Your task to perform on an android device: Search for the best rated headphones on AliExpress. Image 0: 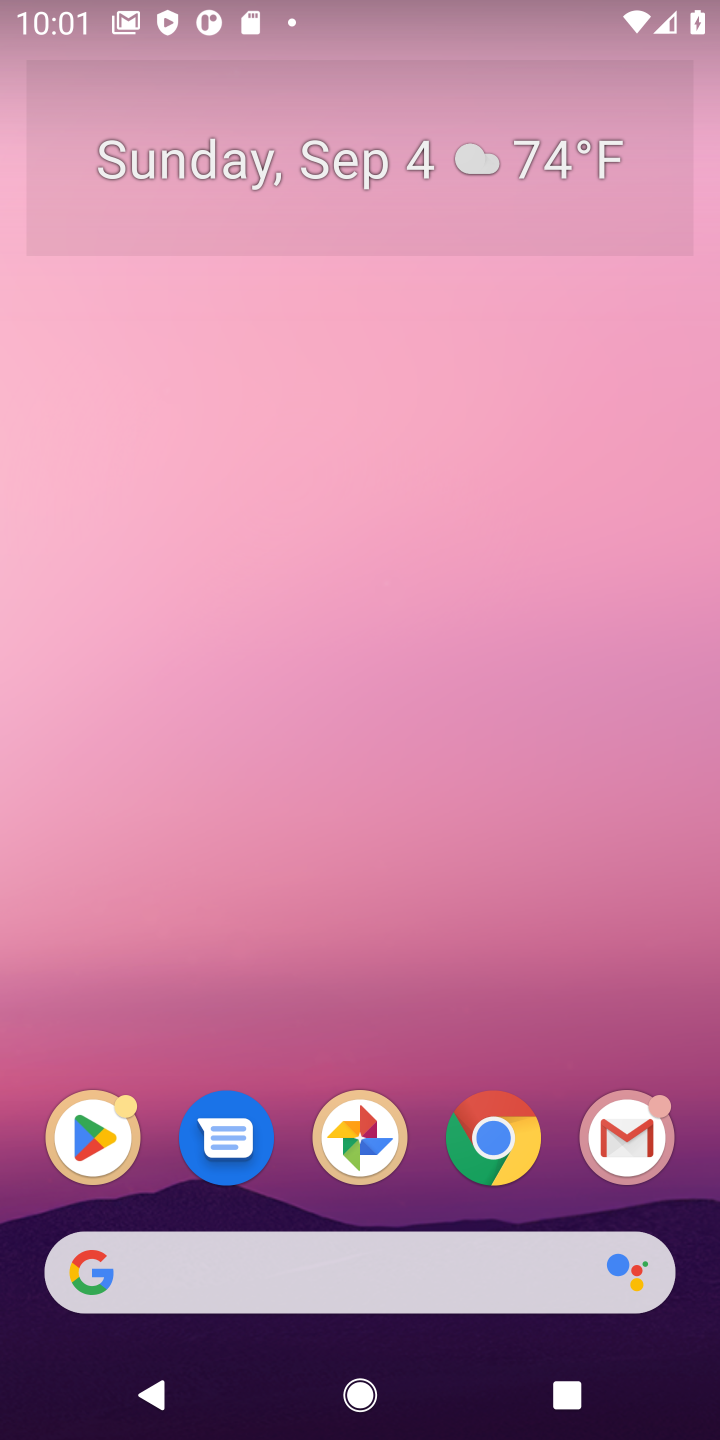
Step 0: click (489, 1173)
Your task to perform on an android device: Search for the best rated headphones on AliExpress. Image 1: 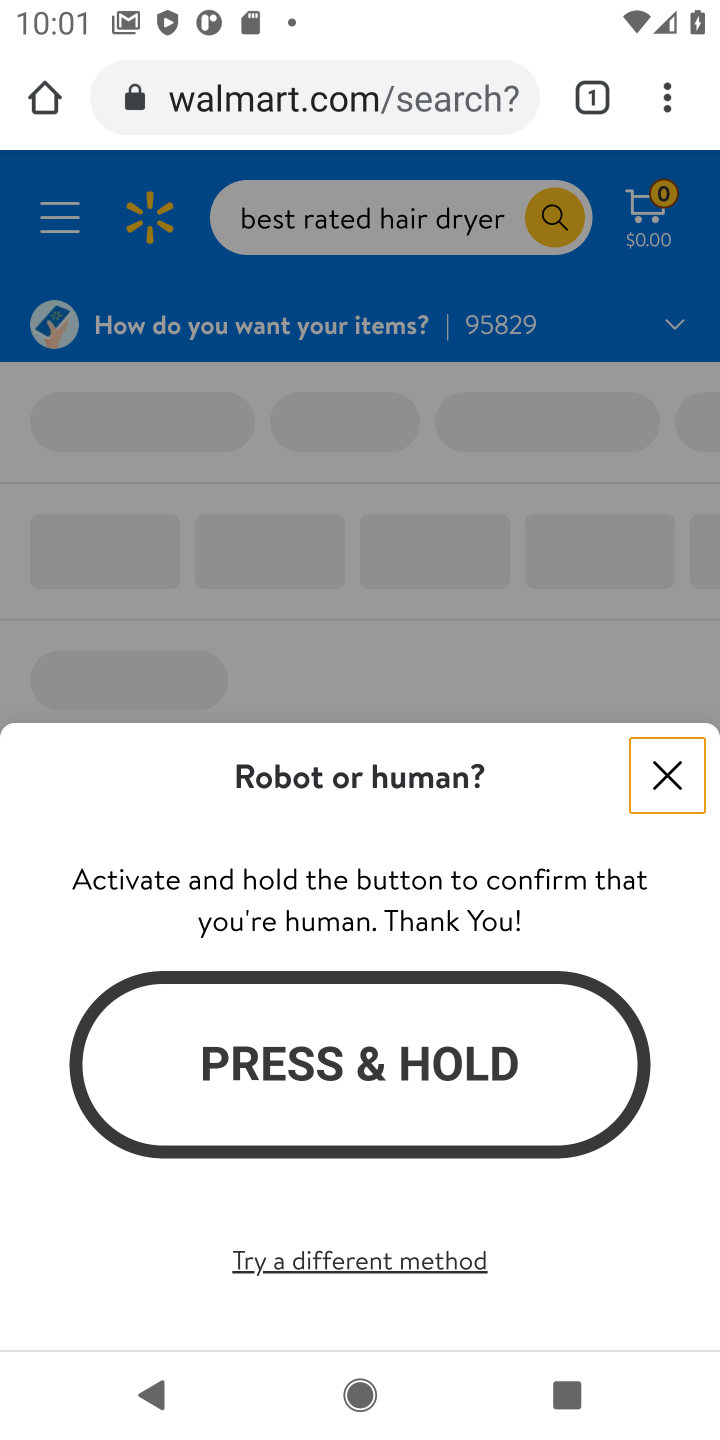
Step 1: click (671, 796)
Your task to perform on an android device: Search for the best rated headphones on AliExpress. Image 2: 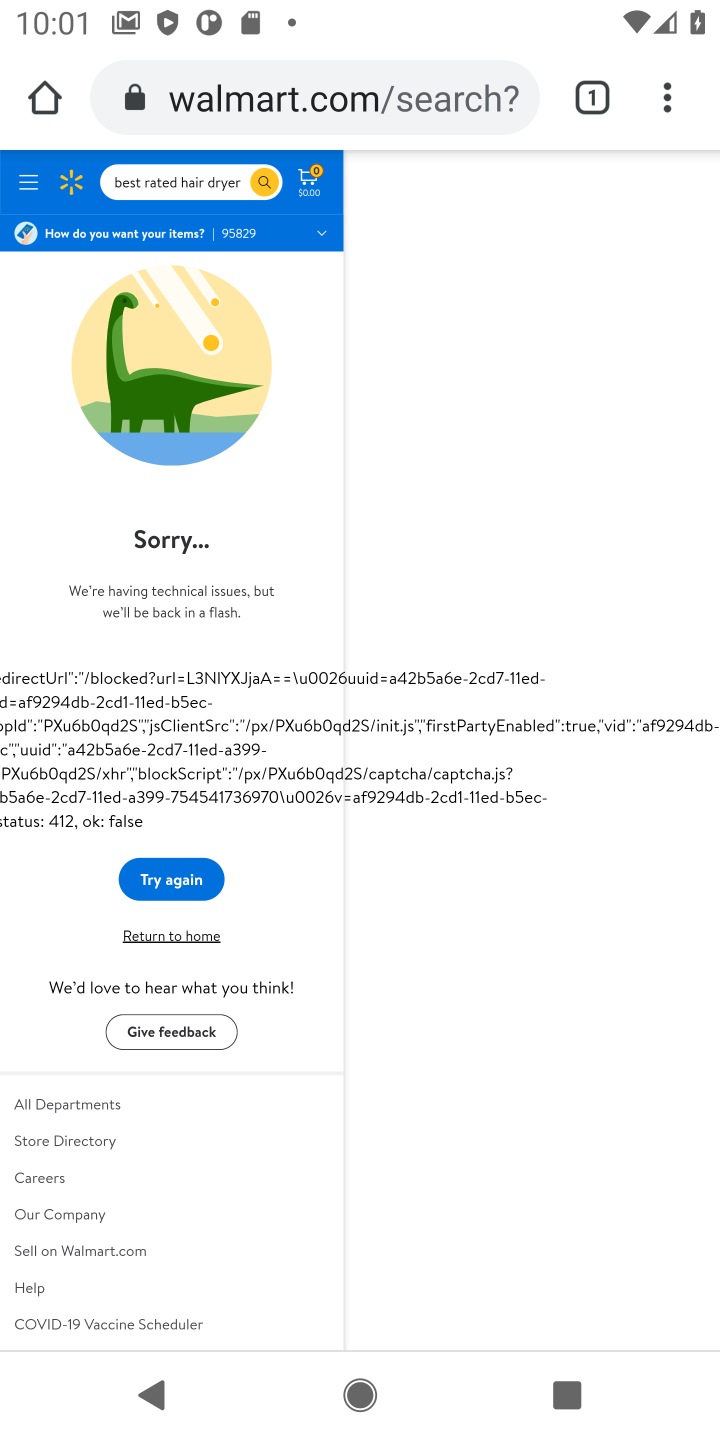
Step 2: click (316, 106)
Your task to perform on an android device: Search for the best rated headphones on AliExpress. Image 3: 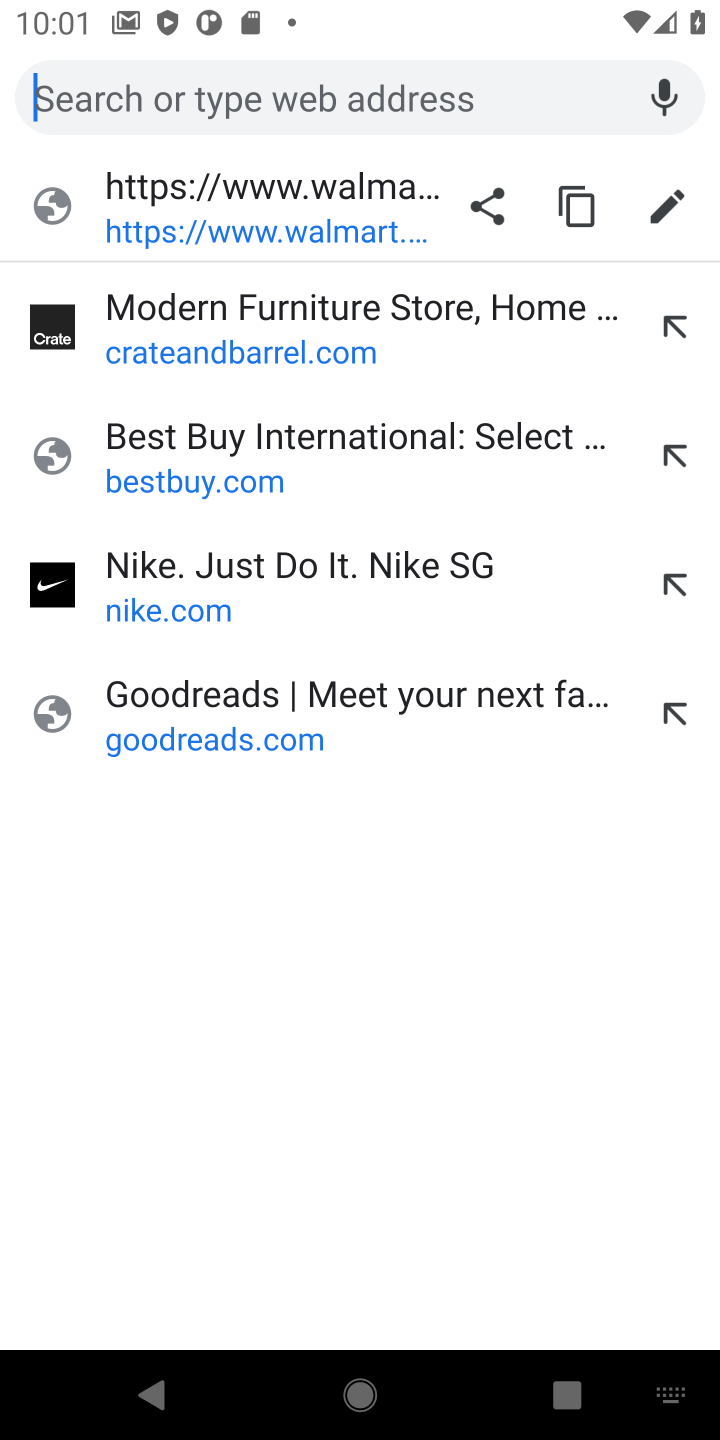
Step 3: type "aliexpress"
Your task to perform on an android device: Search for the best rated headphones on AliExpress. Image 4: 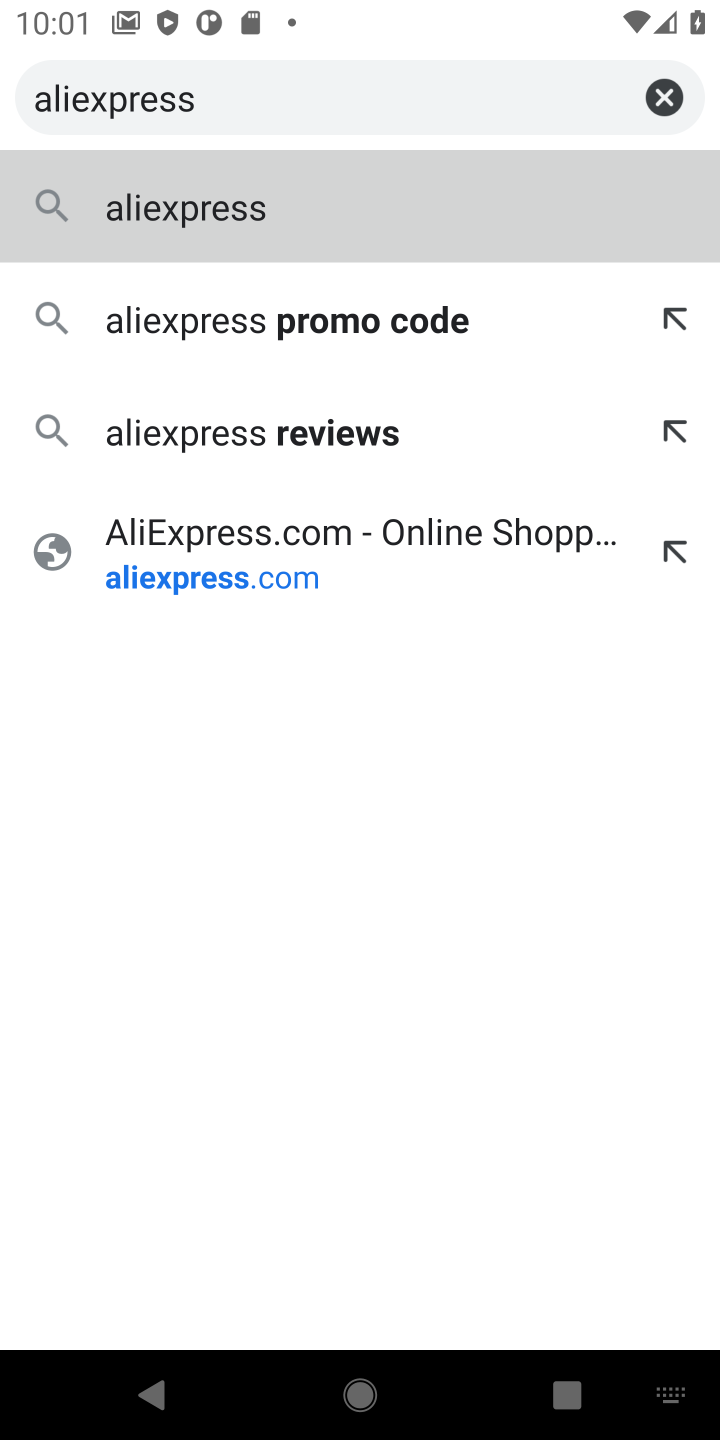
Step 4: click (323, 543)
Your task to perform on an android device: Search for the best rated headphones on AliExpress. Image 5: 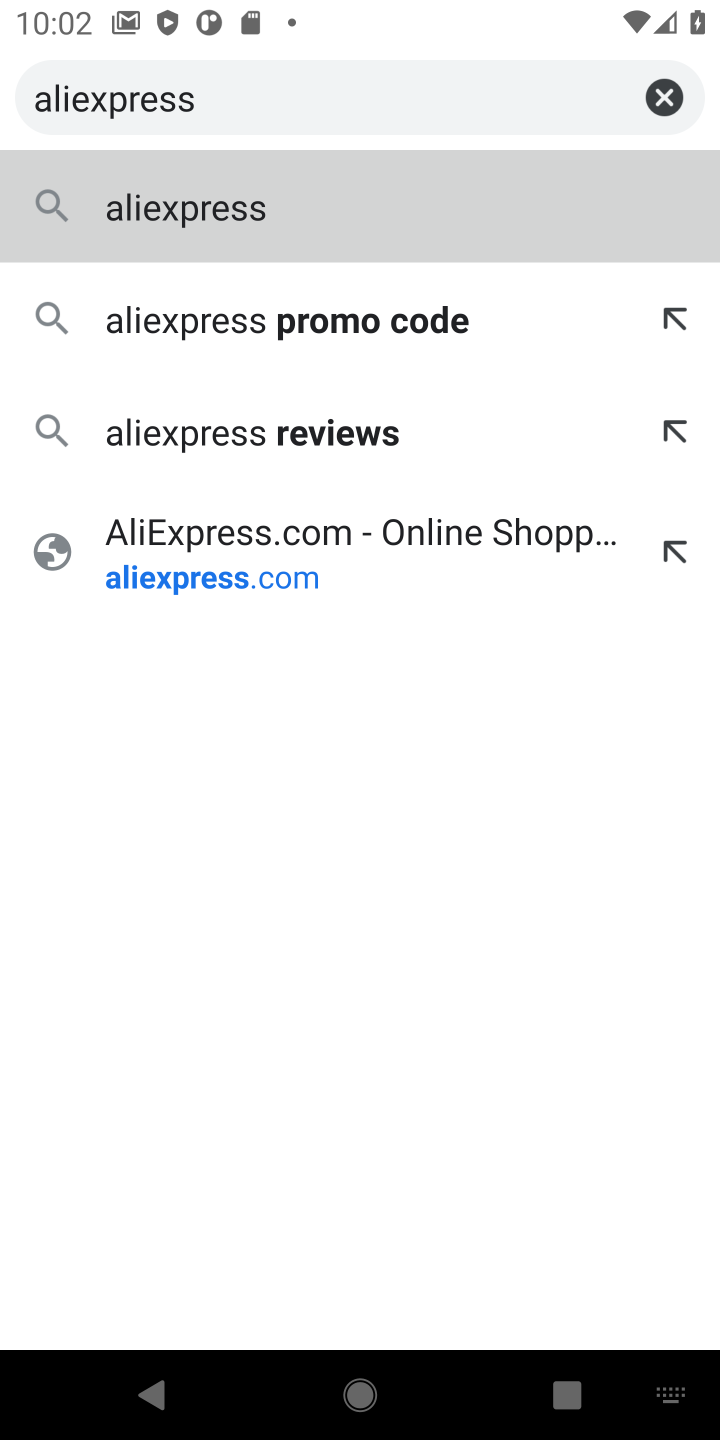
Step 5: click (280, 597)
Your task to perform on an android device: Search for the best rated headphones on AliExpress. Image 6: 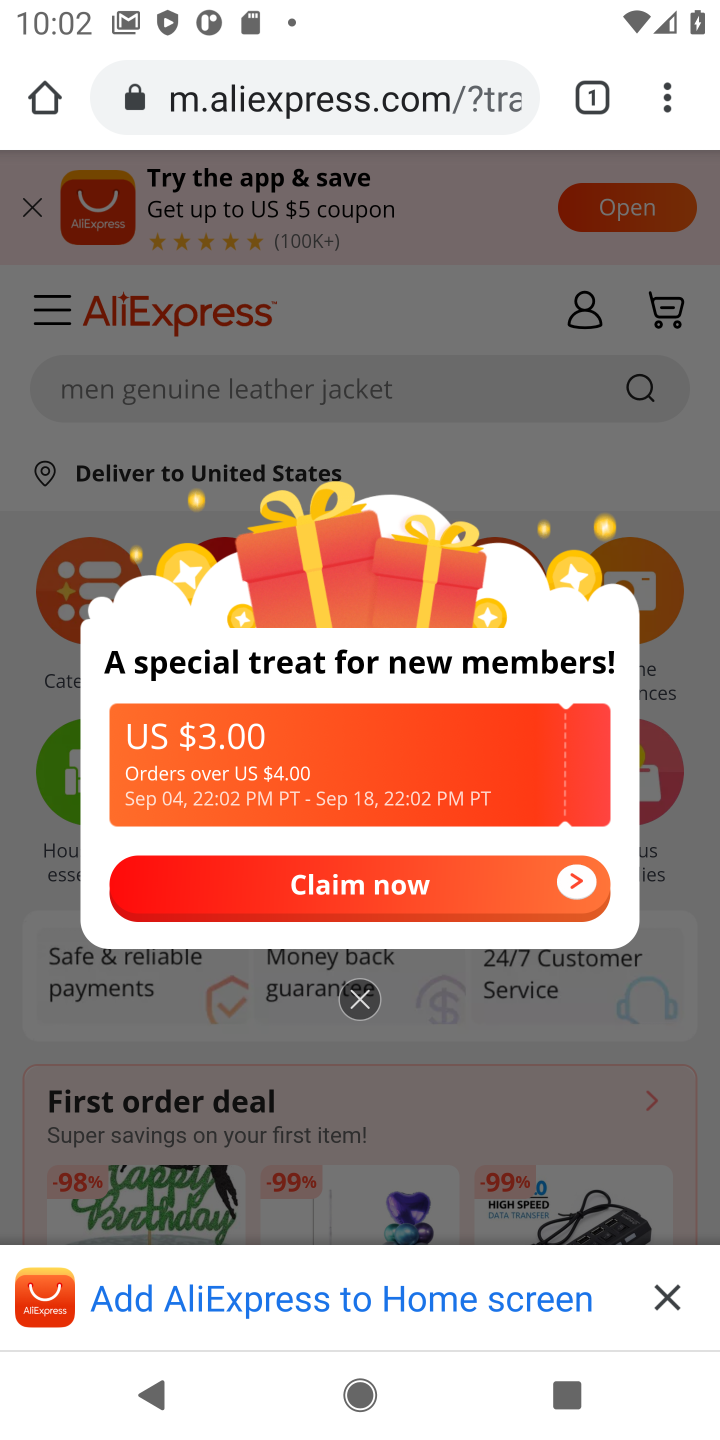
Step 6: click (379, 998)
Your task to perform on an android device: Search for the best rated headphones on AliExpress. Image 7: 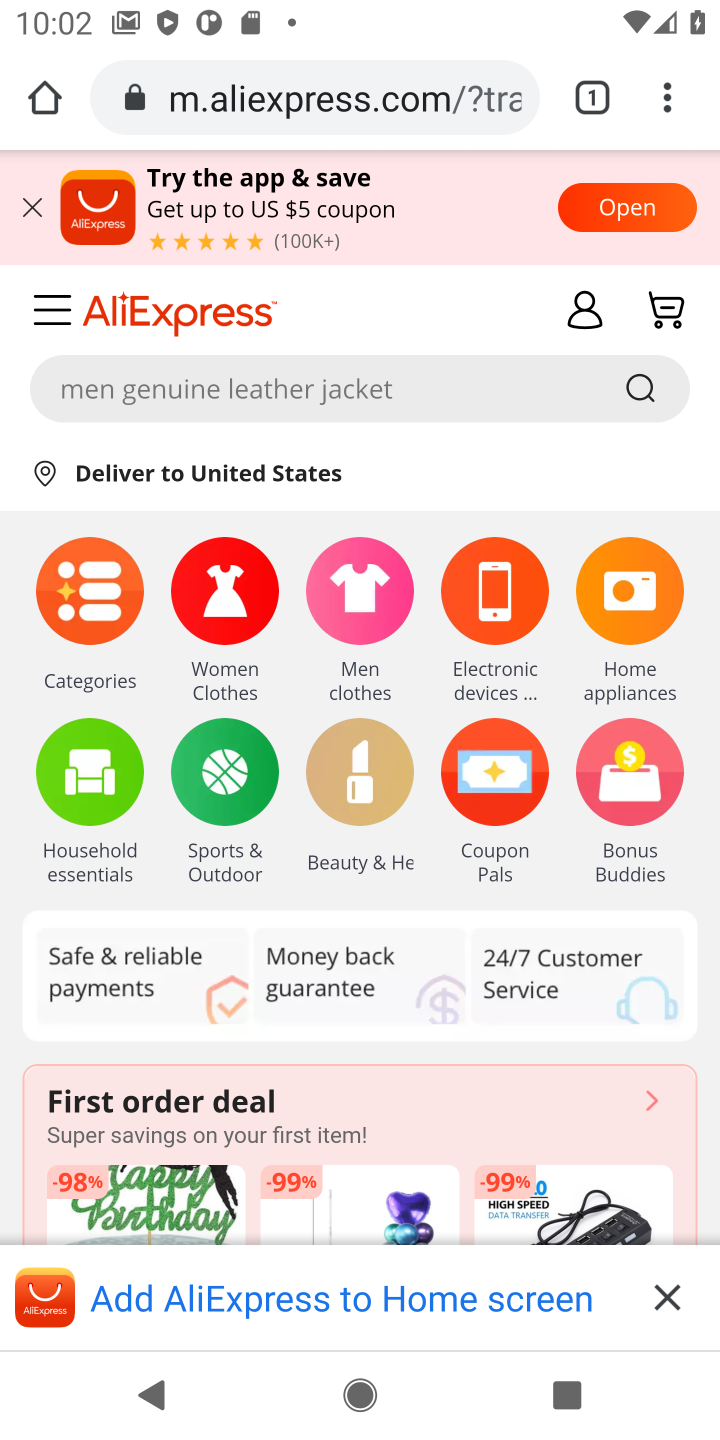
Step 7: click (360, 402)
Your task to perform on an android device: Search for the best rated headphones on AliExpress. Image 8: 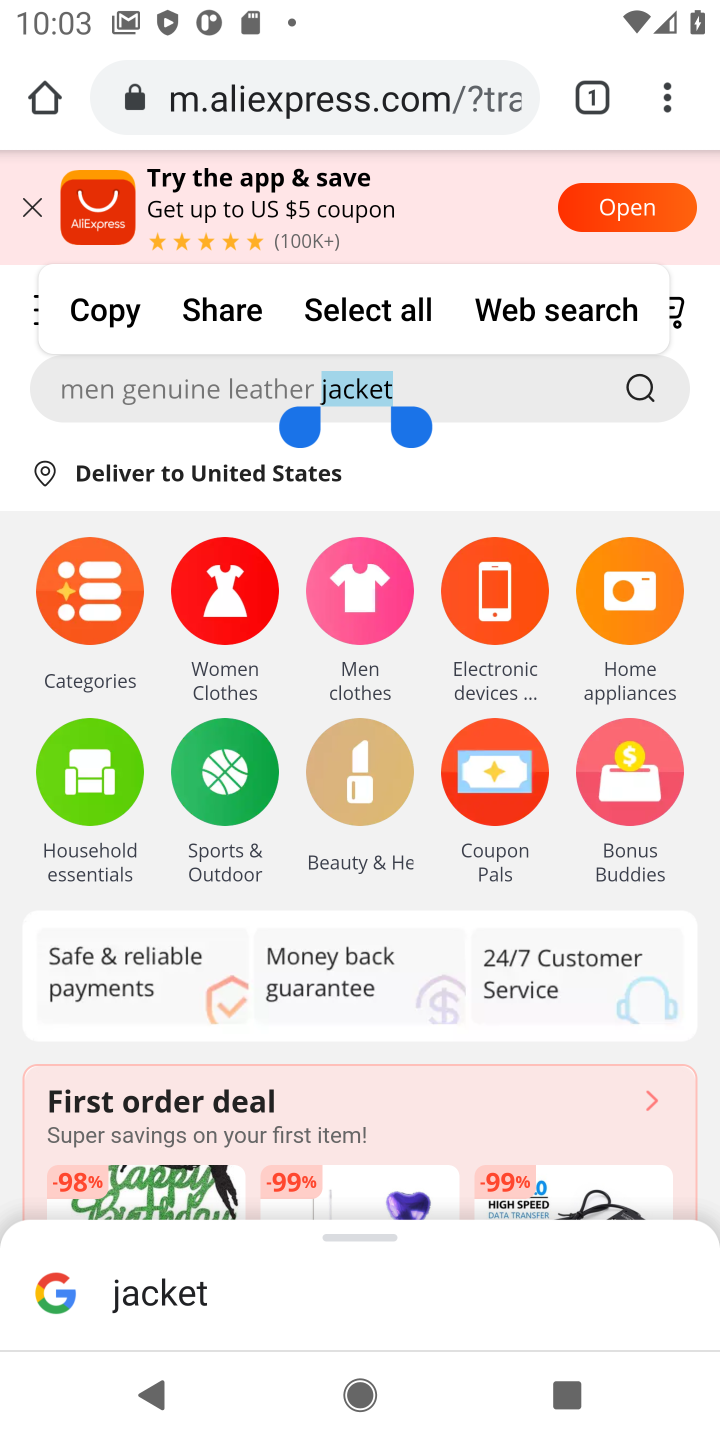
Step 8: click (238, 382)
Your task to perform on an android device: Search for the best rated headphones on AliExpress. Image 9: 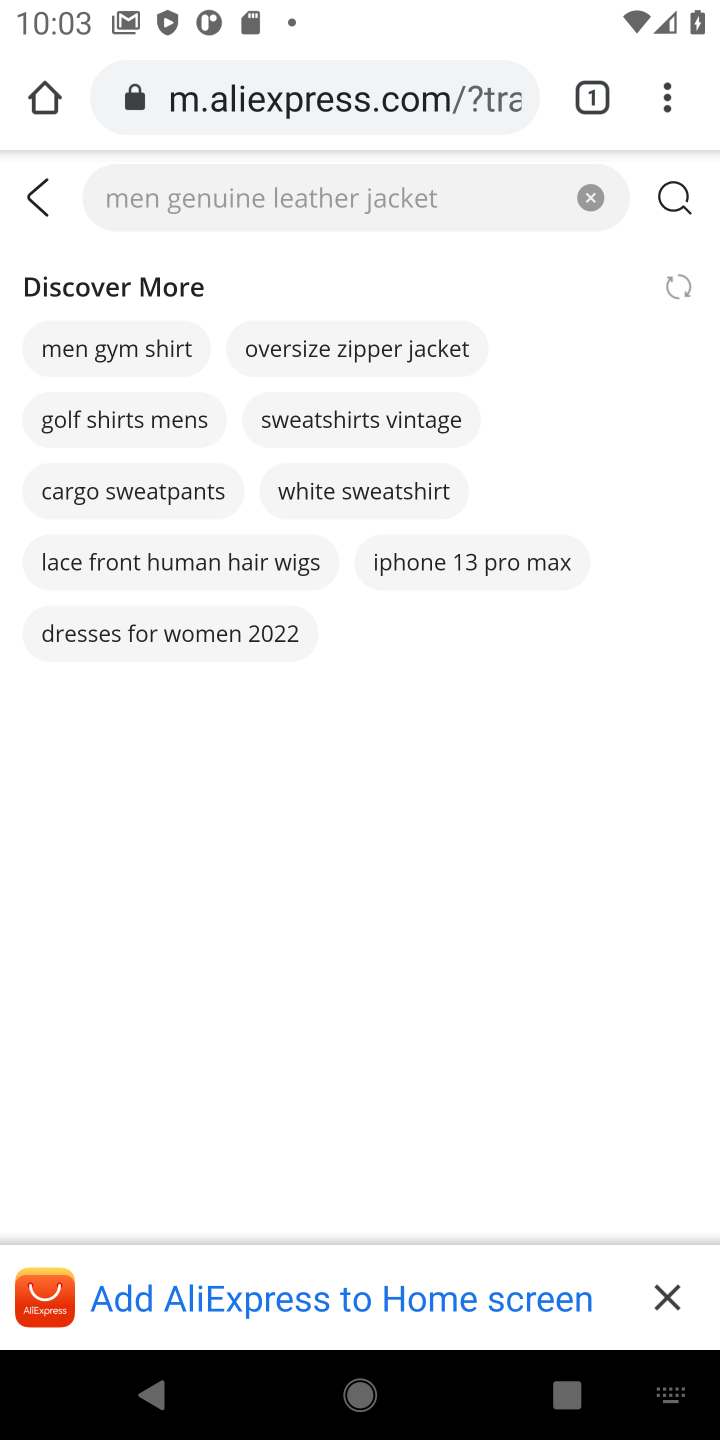
Step 9: type "best rated headphones"
Your task to perform on an android device: Search for the best rated headphones on AliExpress. Image 10: 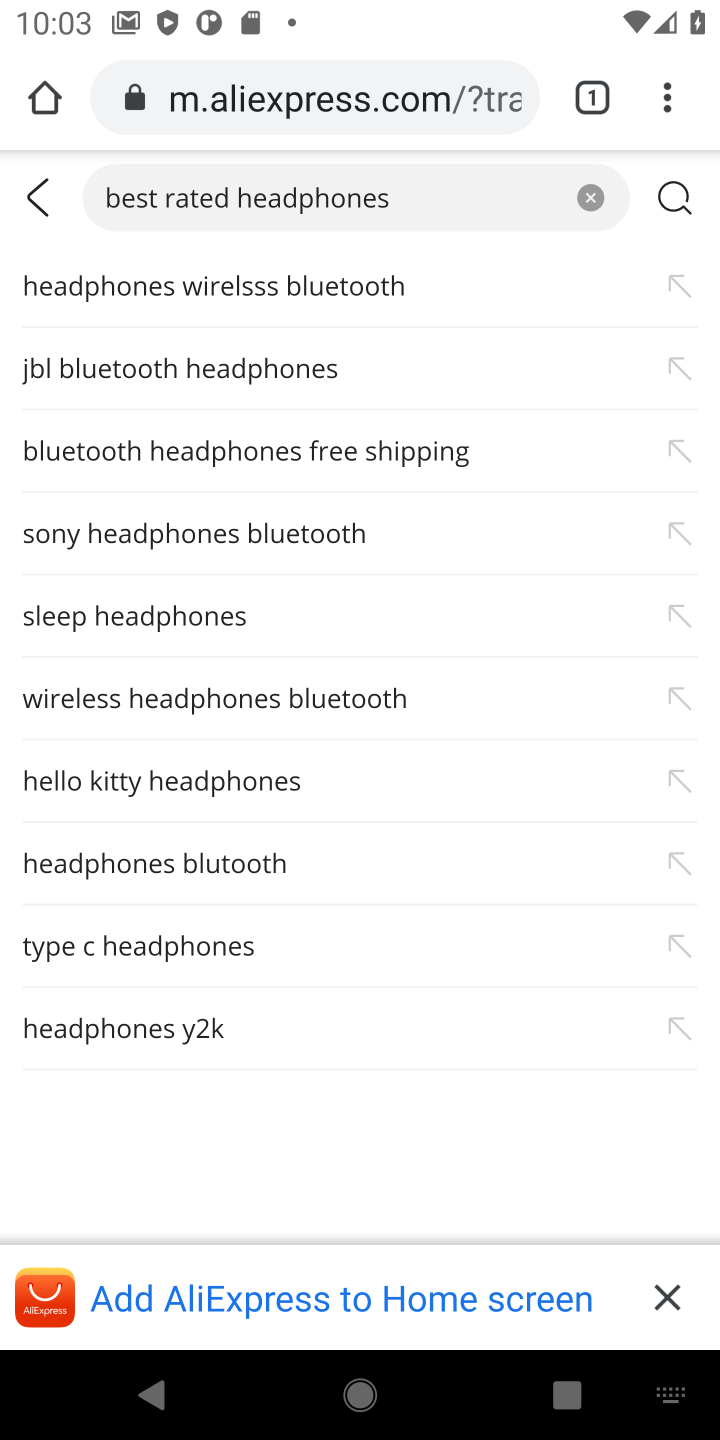
Step 10: press enter
Your task to perform on an android device: Search for the best rated headphones on AliExpress. Image 11: 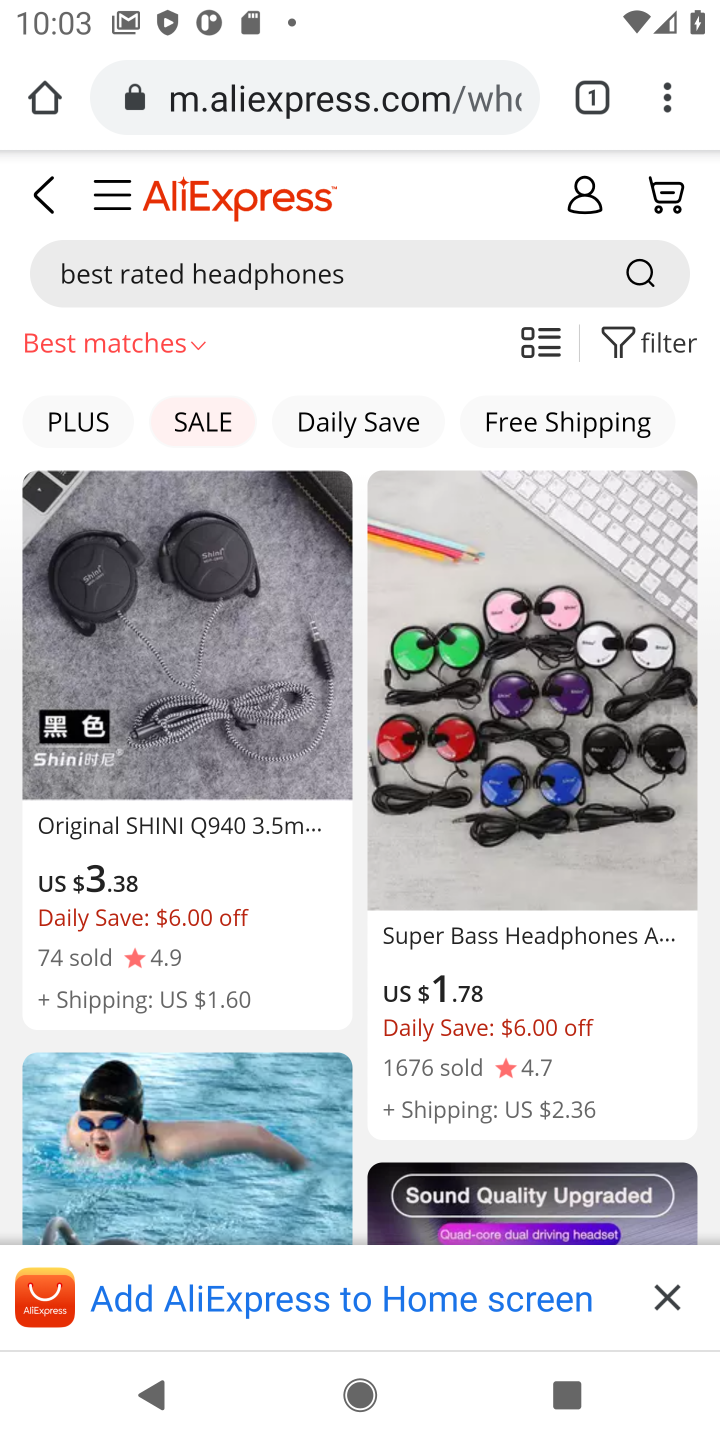
Step 11: press enter
Your task to perform on an android device: Search for the best rated headphones on AliExpress. Image 12: 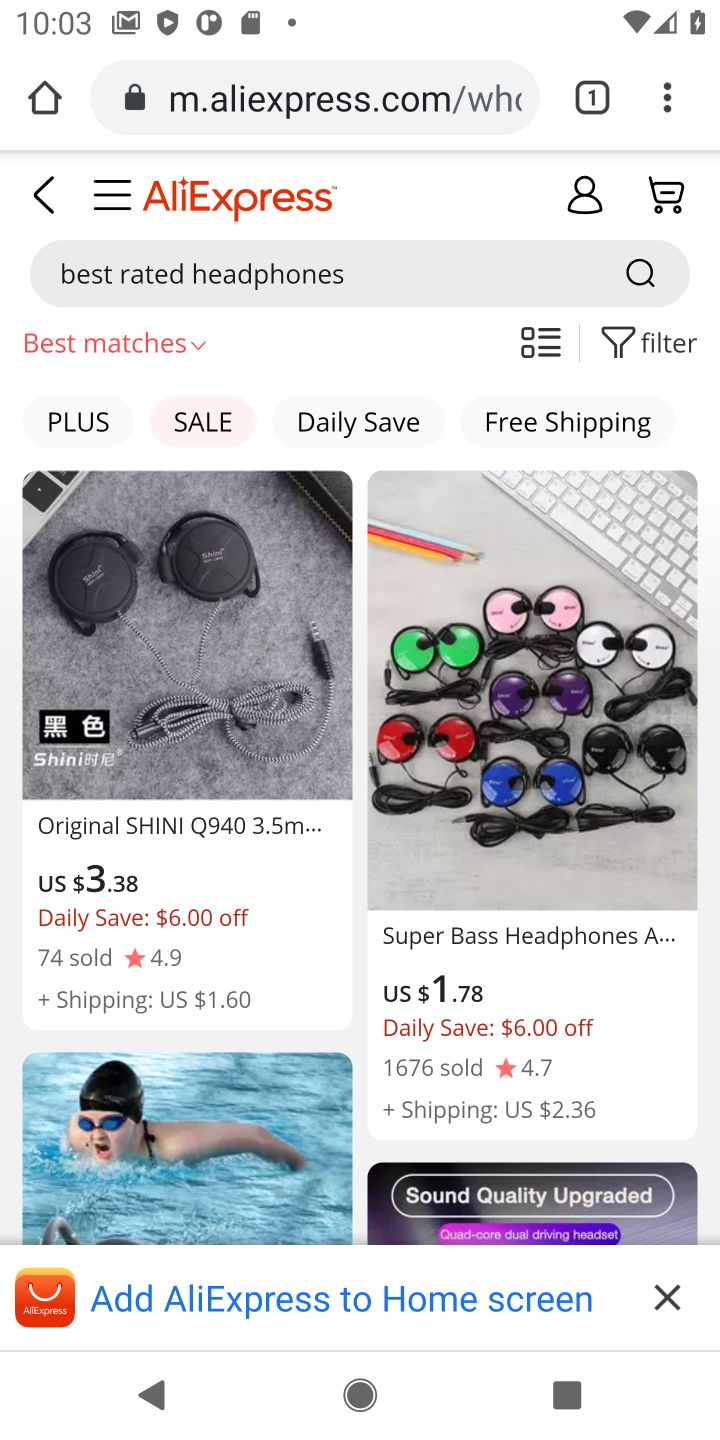
Step 12: task complete